Your task to perform on an android device: turn pop-ups off in chrome Image 0: 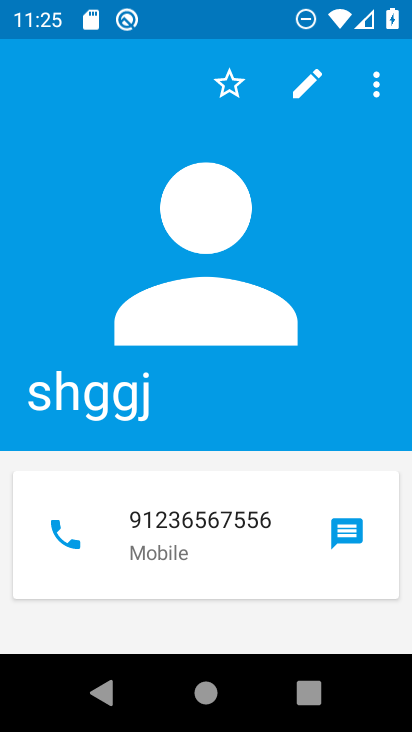
Step 0: press home button
Your task to perform on an android device: turn pop-ups off in chrome Image 1: 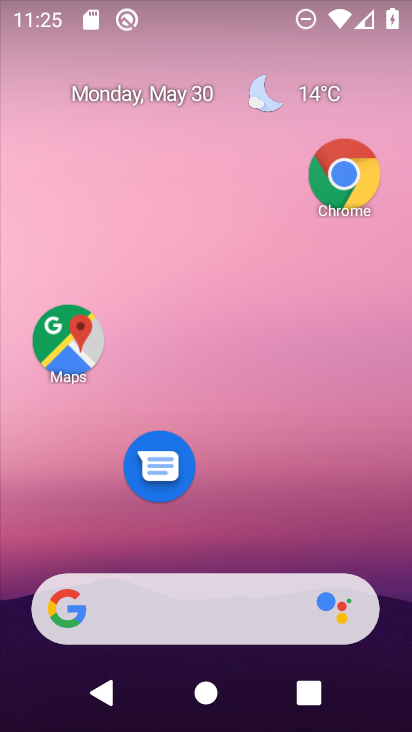
Step 1: click (336, 179)
Your task to perform on an android device: turn pop-ups off in chrome Image 2: 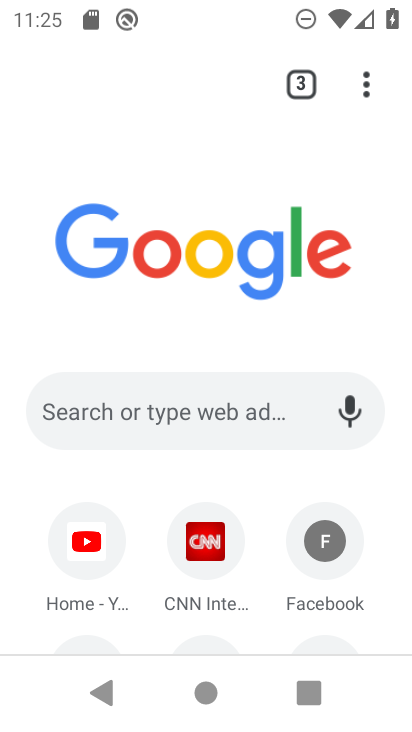
Step 2: click (359, 80)
Your task to perform on an android device: turn pop-ups off in chrome Image 3: 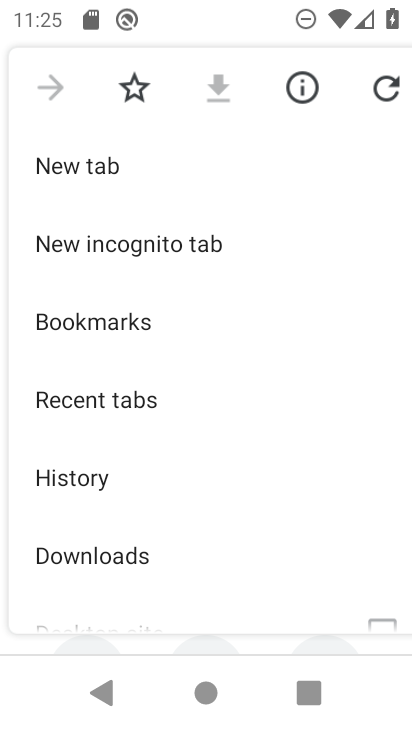
Step 3: drag from (155, 552) to (116, 234)
Your task to perform on an android device: turn pop-ups off in chrome Image 4: 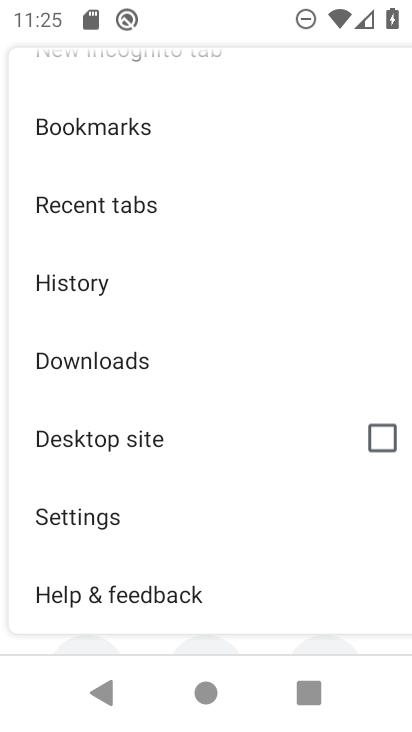
Step 4: click (113, 511)
Your task to perform on an android device: turn pop-ups off in chrome Image 5: 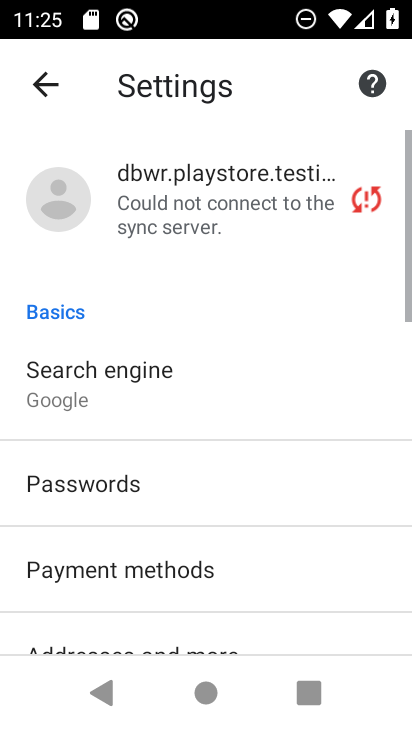
Step 5: drag from (177, 554) to (211, 151)
Your task to perform on an android device: turn pop-ups off in chrome Image 6: 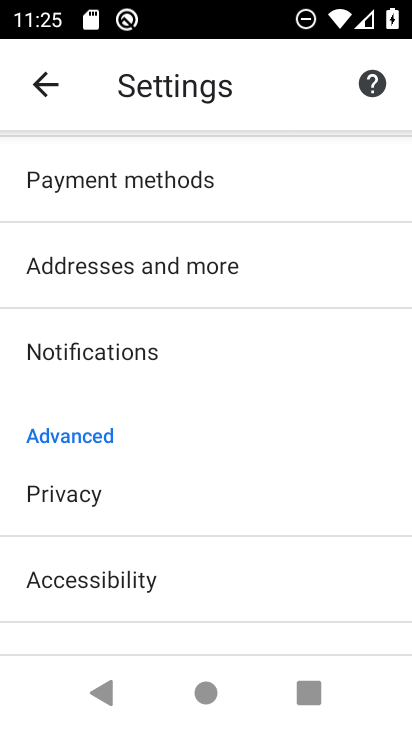
Step 6: drag from (147, 533) to (185, 198)
Your task to perform on an android device: turn pop-ups off in chrome Image 7: 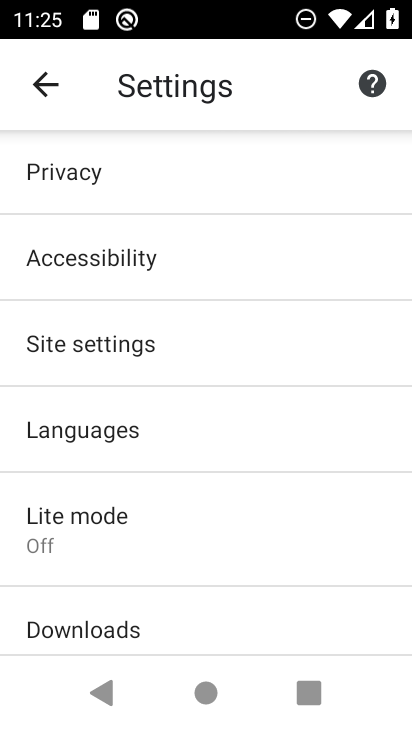
Step 7: click (135, 326)
Your task to perform on an android device: turn pop-ups off in chrome Image 8: 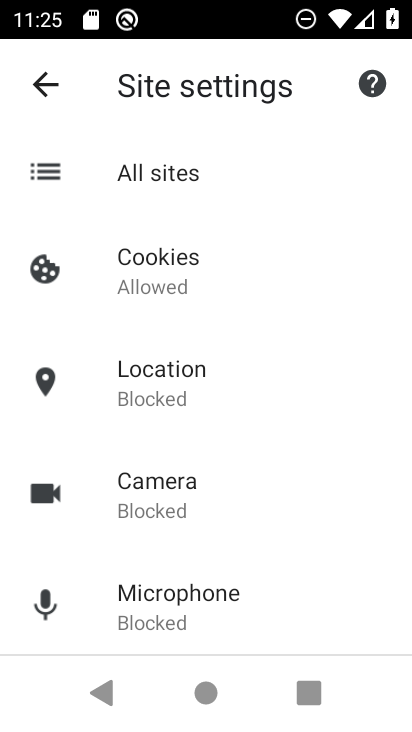
Step 8: drag from (251, 583) to (225, 160)
Your task to perform on an android device: turn pop-ups off in chrome Image 9: 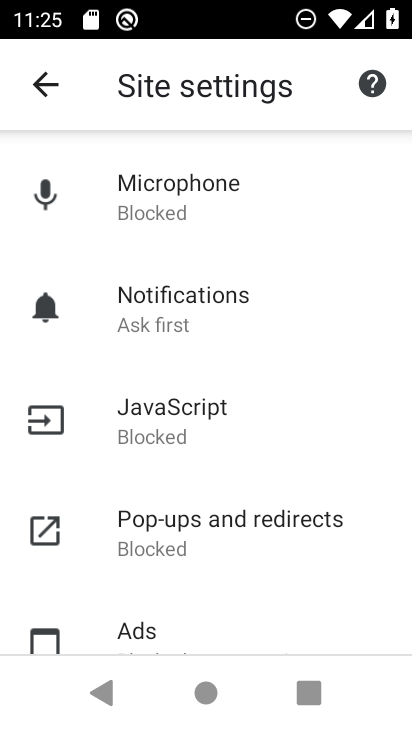
Step 9: click (175, 521)
Your task to perform on an android device: turn pop-ups off in chrome Image 10: 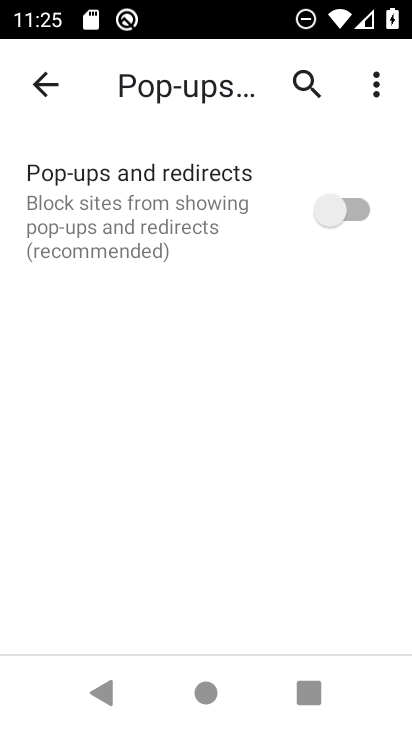
Step 10: task complete